Your task to perform on an android device: toggle location history Image 0: 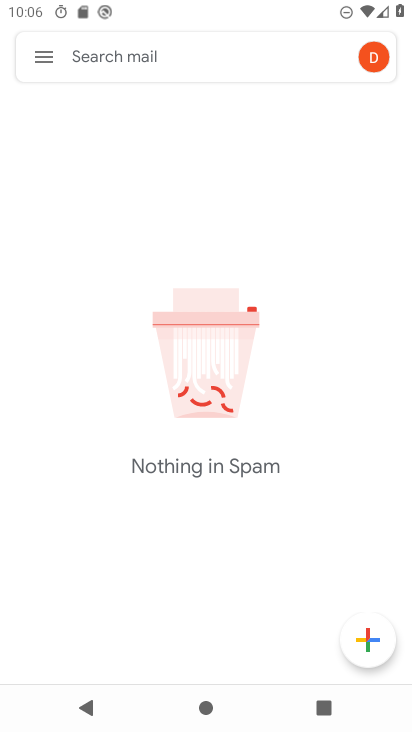
Step 0: click (49, 68)
Your task to perform on an android device: toggle location history Image 1: 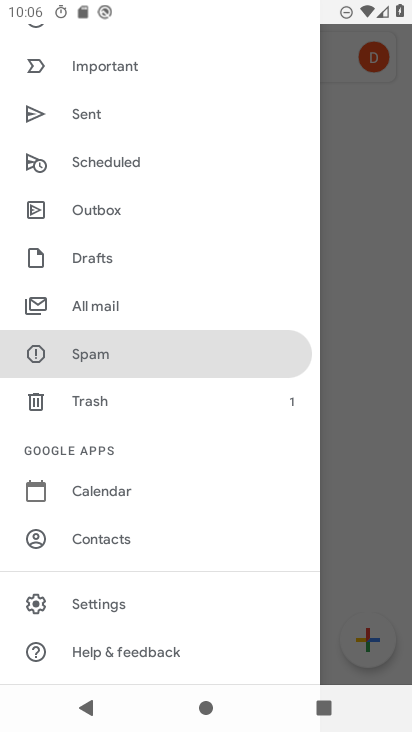
Step 1: press home button
Your task to perform on an android device: toggle location history Image 2: 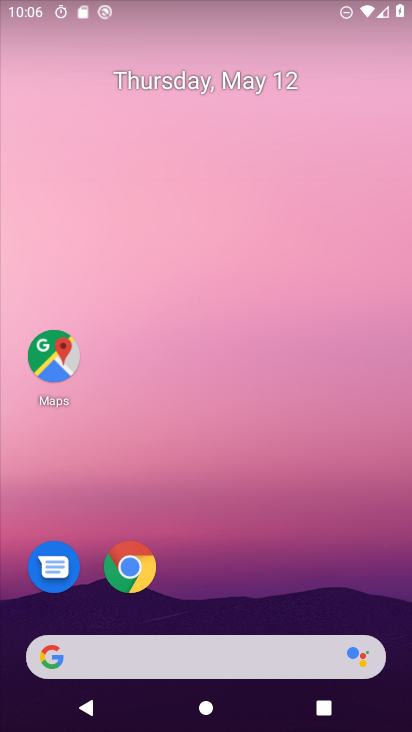
Step 2: drag from (200, 700) to (225, 168)
Your task to perform on an android device: toggle location history Image 3: 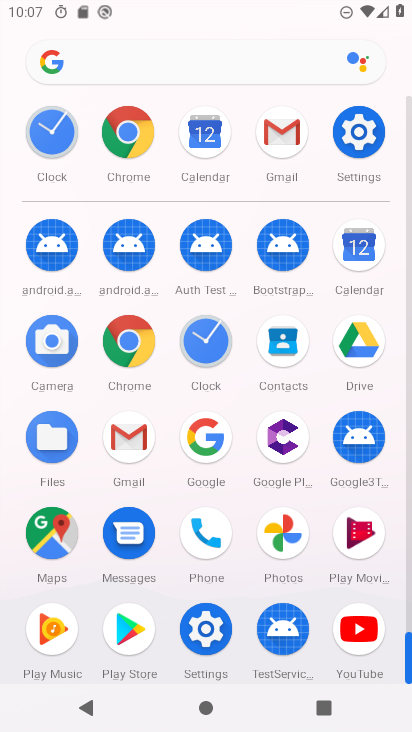
Step 3: click (365, 145)
Your task to perform on an android device: toggle location history Image 4: 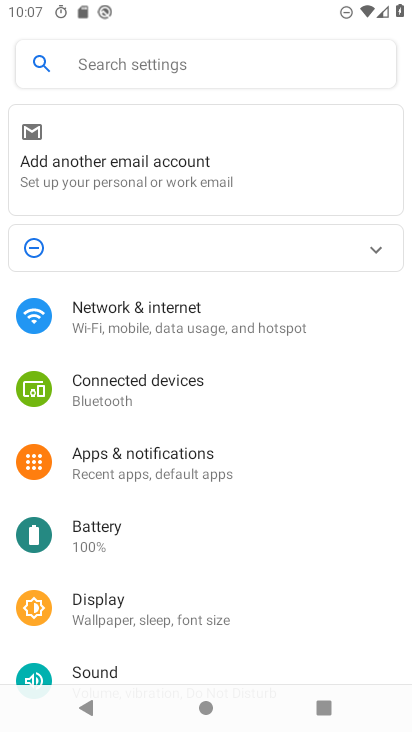
Step 4: drag from (238, 583) to (256, 172)
Your task to perform on an android device: toggle location history Image 5: 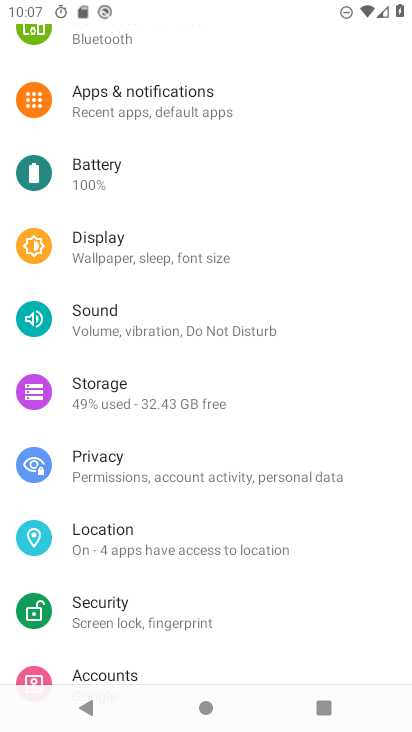
Step 5: drag from (203, 539) to (224, 325)
Your task to perform on an android device: toggle location history Image 6: 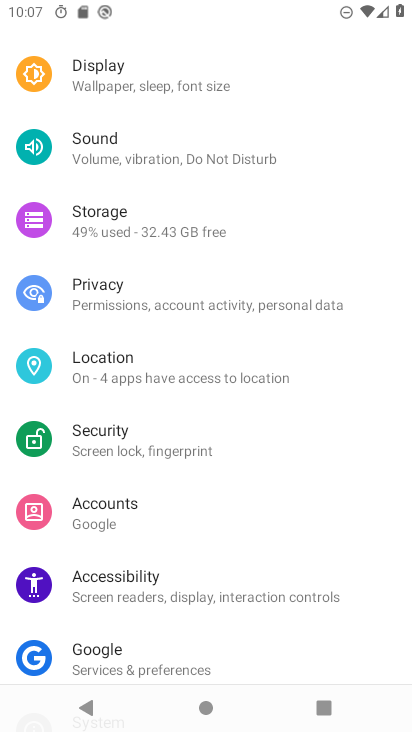
Step 6: click (194, 388)
Your task to perform on an android device: toggle location history Image 7: 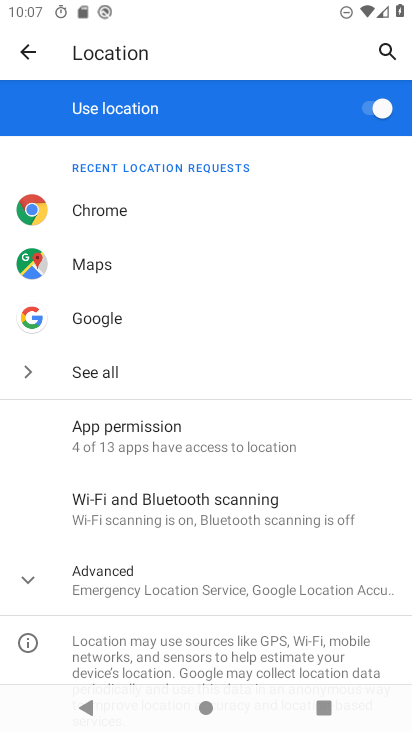
Step 7: drag from (267, 518) to (270, 146)
Your task to perform on an android device: toggle location history Image 8: 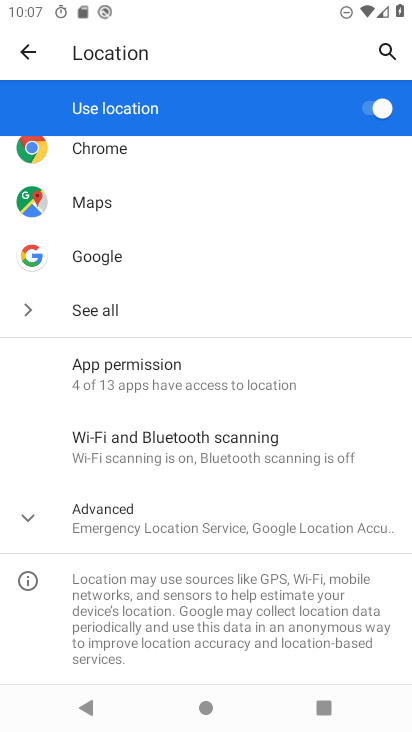
Step 8: click (200, 530)
Your task to perform on an android device: toggle location history Image 9: 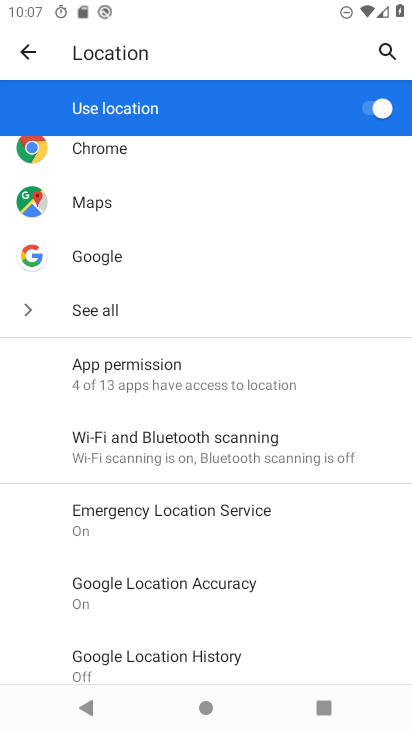
Step 9: drag from (199, 532) to (211, 227)
Your task to perform on an android device: toggle location history Image 10: 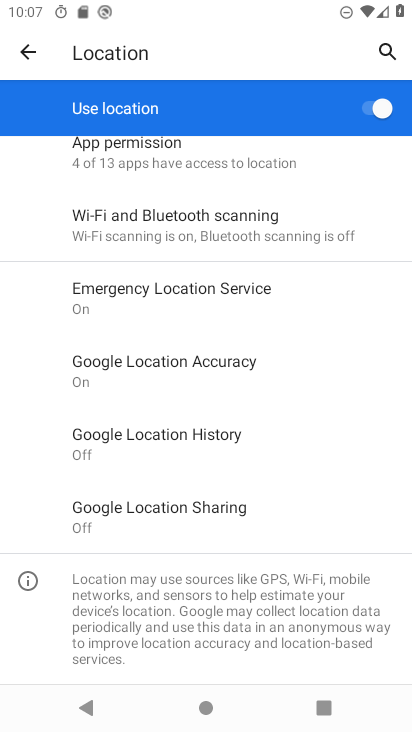
Step 10: click (204, 434)
Your task to perform on an android device: toggle location history Image 11: 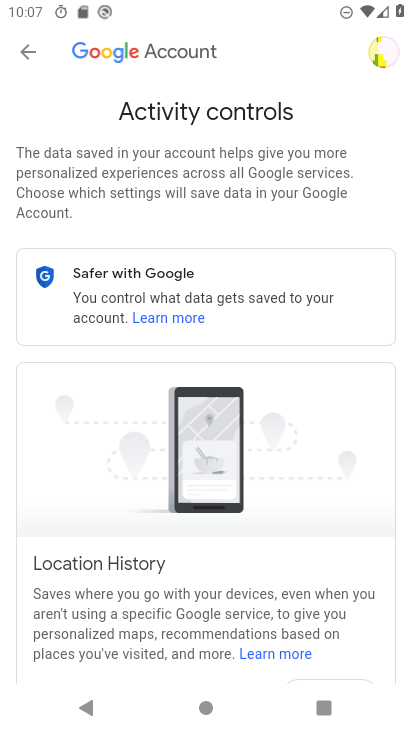
Step 11: drag from (286, 611) to (276, 236)
Your task to perform on an android device: toggle location history Image 12: 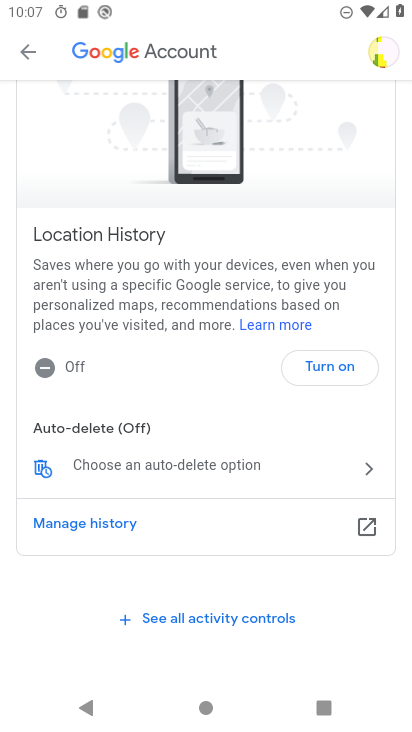
Step 12: click (327, 360)
Your task to perform on an android device: toggle location history Image 13: 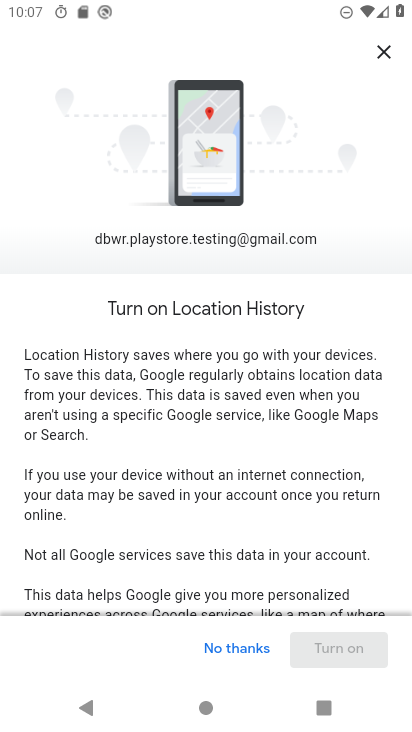
Step 13: drag from (292, 484) to (289, 147)
Your task to perform on an android device: toggle location history Image 14: 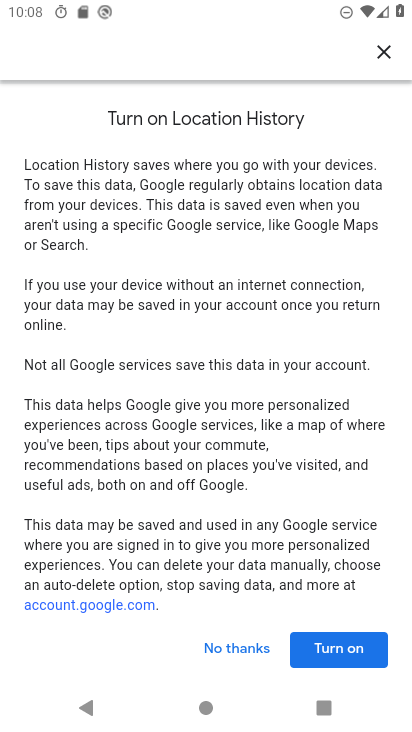
Step 14: drag from (261, 491) to (260, 201)
Your task to perform on an android device: toggle location history Image 15: 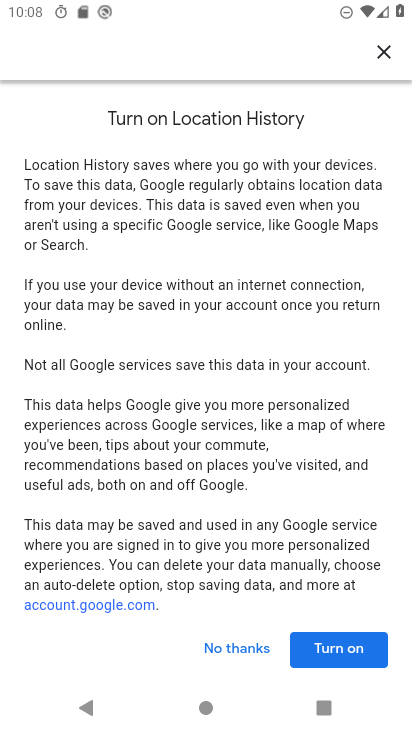
Step 15: click (325, 656)
Your task to perform on an android device: toggle location history Image 16: 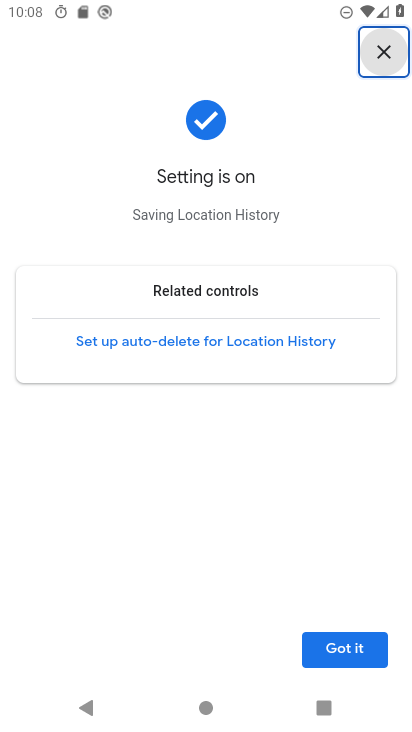
Step 16: click (353, 655)
Your task to perform on an android device: toggle location history Image 17: 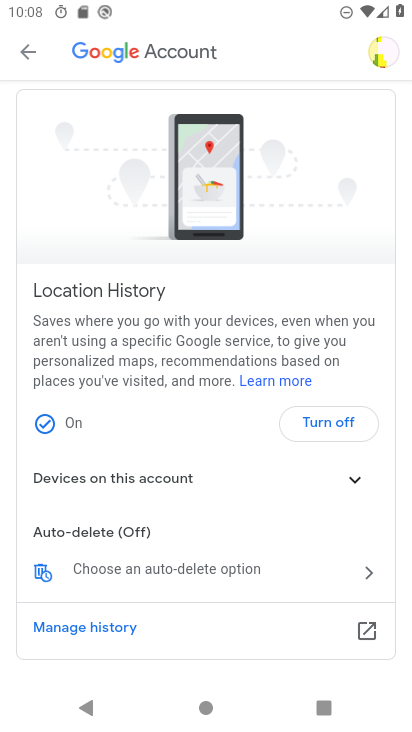
Step 17: task complete